Your task to perform on an android device: Search for seafood restaurants on Google Maps Image 0: 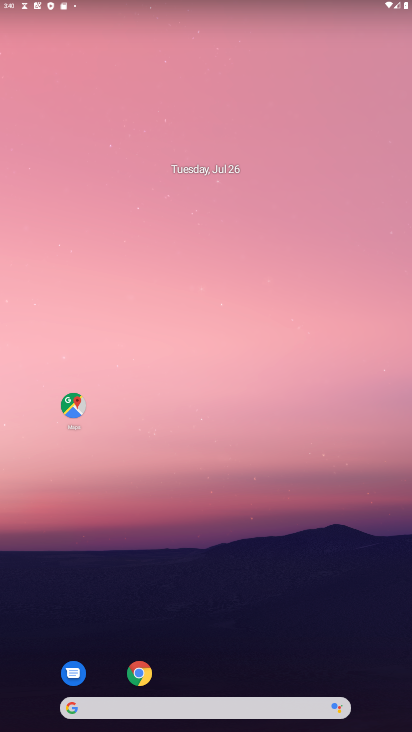
Step 0: click (72, 404)
Your task to perform on an android device: Search for seafood restaurants on Google Maps Image 1: 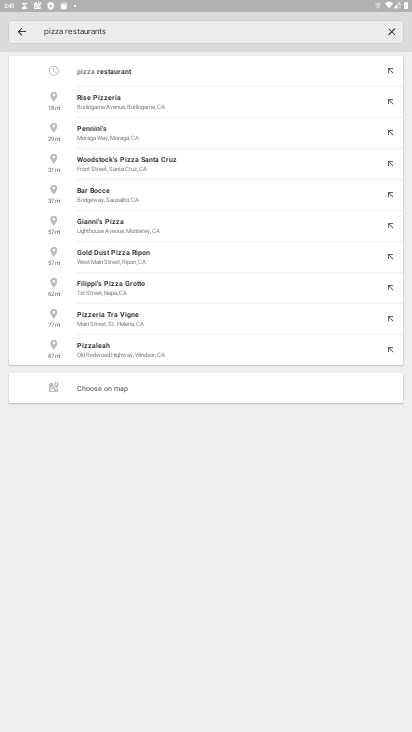
Step 1: click (391, 30)
Your task to perform on an android device: Search for seafood restaurants on Google Maps Image 2: 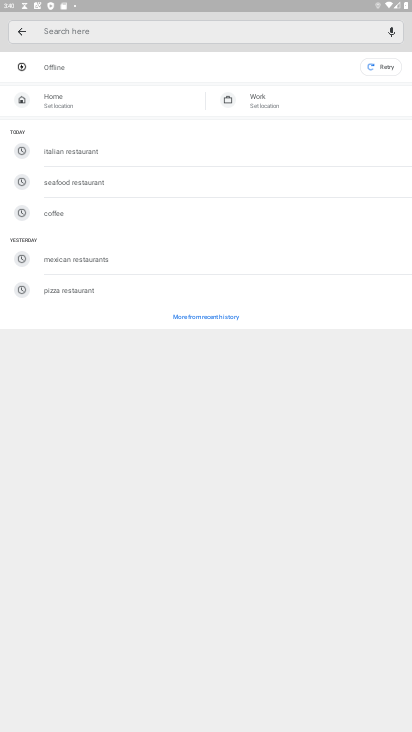
Step 2: click (331, 35)
Your task to perform on an android device: Search for seafood restaurants on Google Maps Image 3: 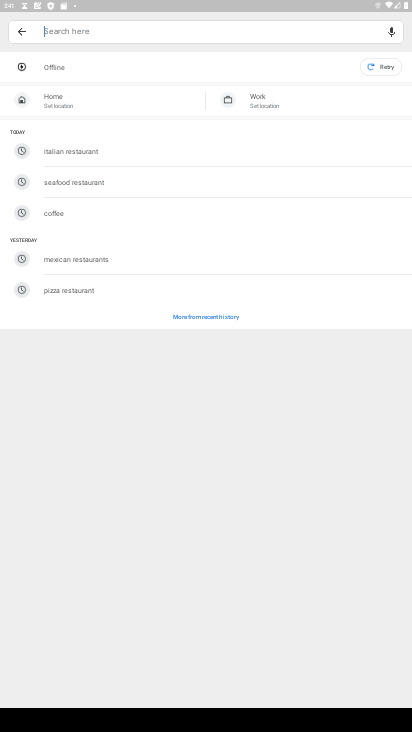
Step 3: type "seafood restaurants"
Your task to perform on an android device: Search for seafood restaurants on Google Maps Image 4: 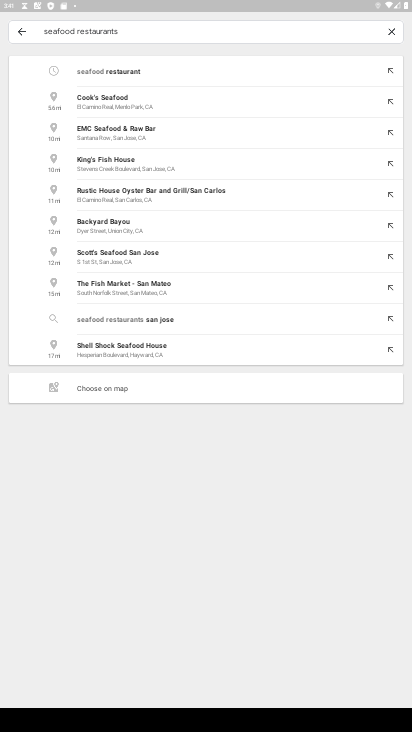
Step 4: click (128, 73)
Your task to perform on an android device: Search for seafood restaurants on Google Maps Image 5: 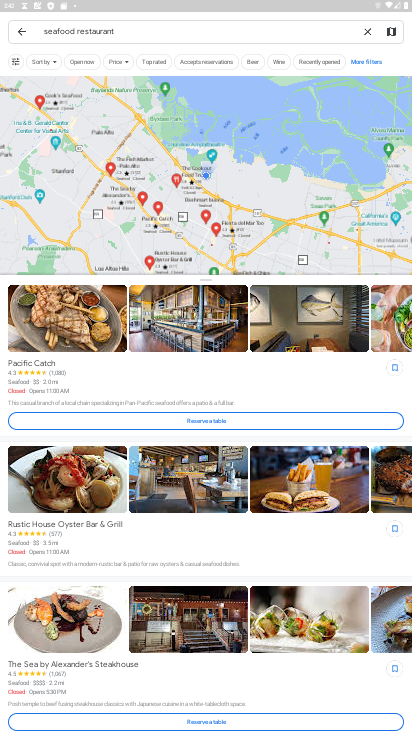
Step 5: task complete